Your task to perform on an android device: toggle data saver in the chrome app Image 0: 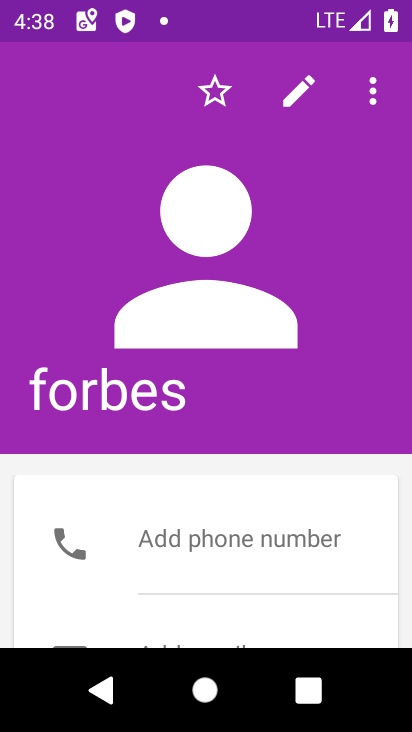
Step 0: press home button
Your task to perform on an android device: toggle data saver in the chrome app Image 1: 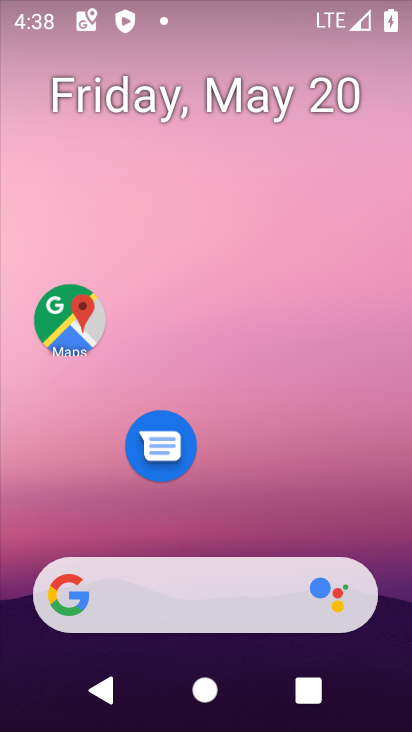
Step 1: drag from (212, 509) to (279, 15)
Your task to perform on an android device: toggle data saver in the chrome app Image 2: 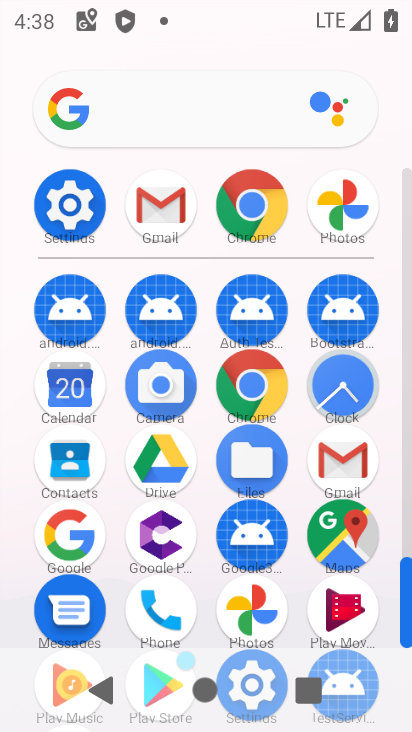
Step 2: click (243, 378)
Your task to perform on an android device: toggle data saver in the chrome app Image 3: 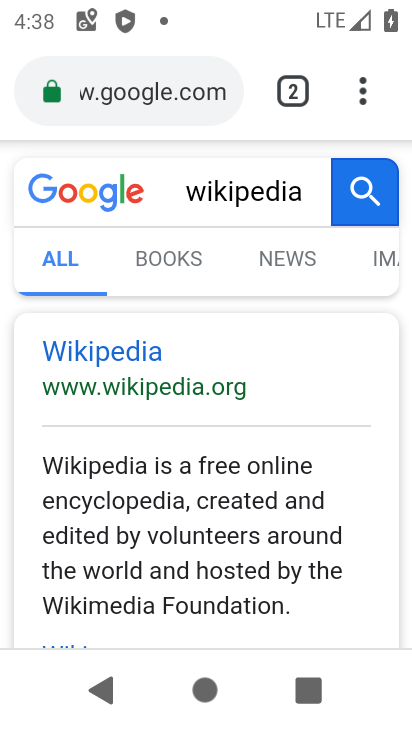
Step 3: click (368, 91)
Your task to perform on an android device: toggle data saver in the chrome app Image 4: 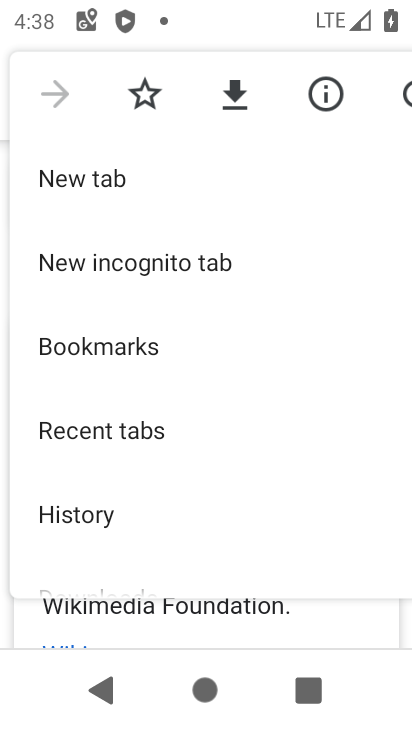
Step 4: drag from (169, 521) to (181, 245)
Your task to perform on an android device: toggle data saver in the chrome app Image 5: 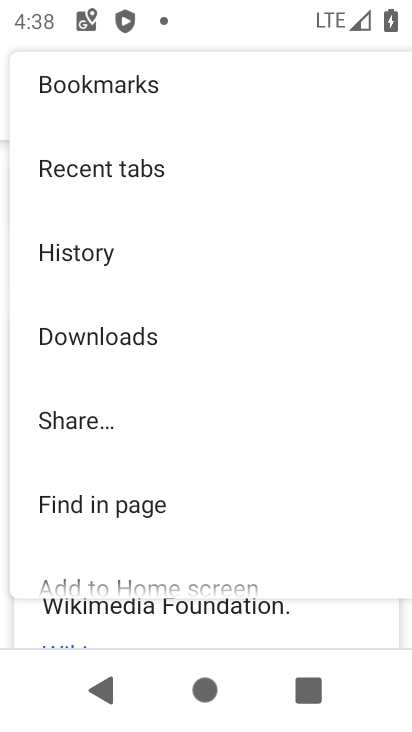
Step 5: drag from (91, 499) to (133, 211)
Your task to perform on an android device: toggle data saver in the chrome app Image 6: 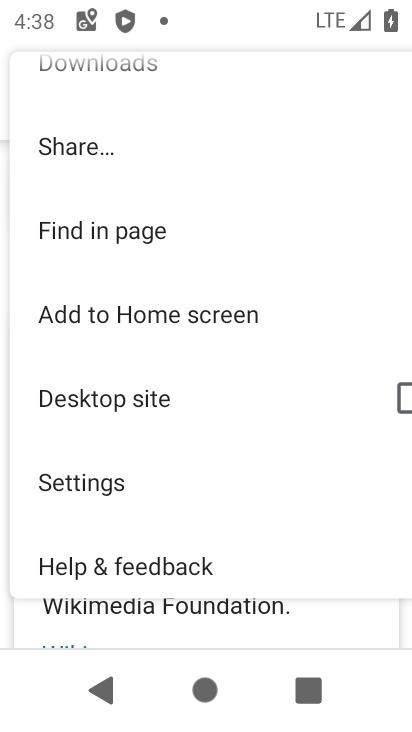
Step 6: click (109, 477)
Your task to perform on an android device: toggle data saver in the chrome app Image 7: 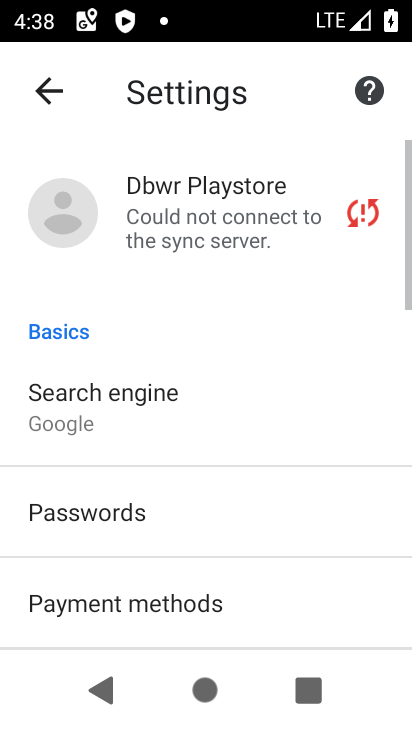
Step 7: drag from (163, 500) to (202, 251)
Your task to perform on an android device: toggle data saver in the chrome app Image 8: 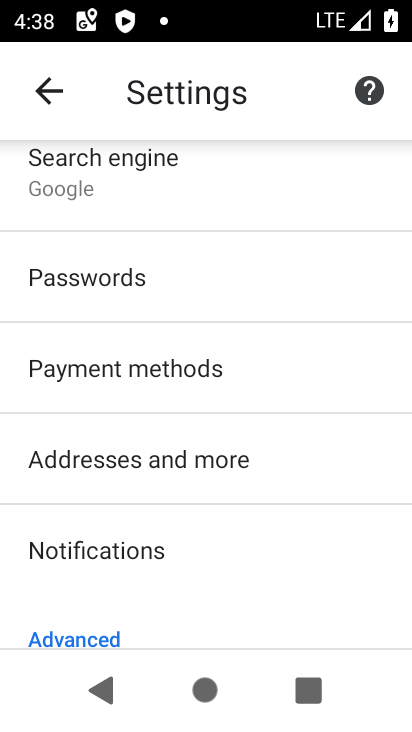
Step 8: drag from (160, 531) to (204, 270)
Your task to perform on an android device: toggle data saver in the chrome app Image 9: 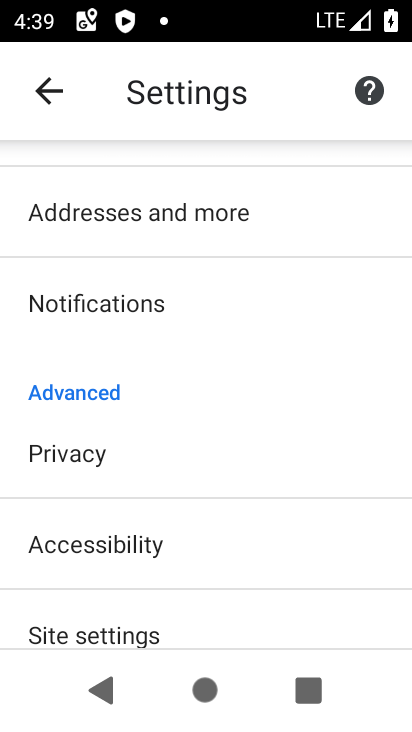
Step 9: drag from (153, 558) to (194, 268)
Your task to perform on an android device: toggle data saver in the chrome app Image 10: 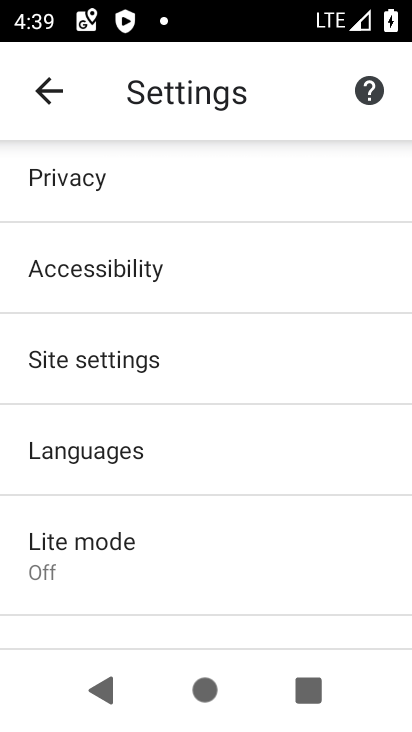
Step 10: click (145, 567)
Your task to perform on an android device: toggle data saver in the chrome app Image 11: 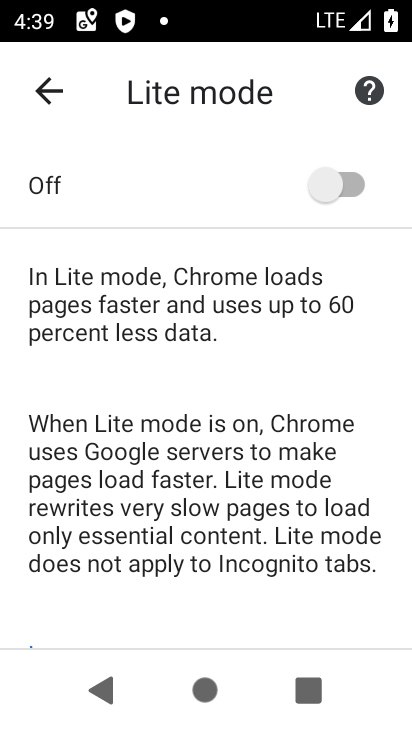
Step 11: click (295, 177)
Your task to perform on an android device: toggle data saver in the chrome app Image 12: 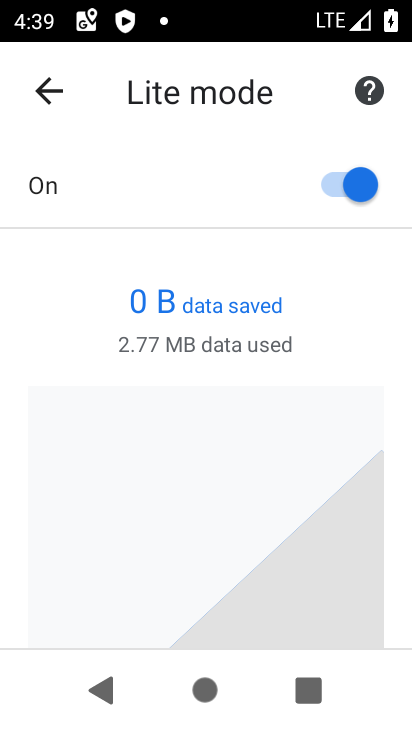
Step 12: task complete